Your task to perform on an android device: Open Google Chrome Image 0: 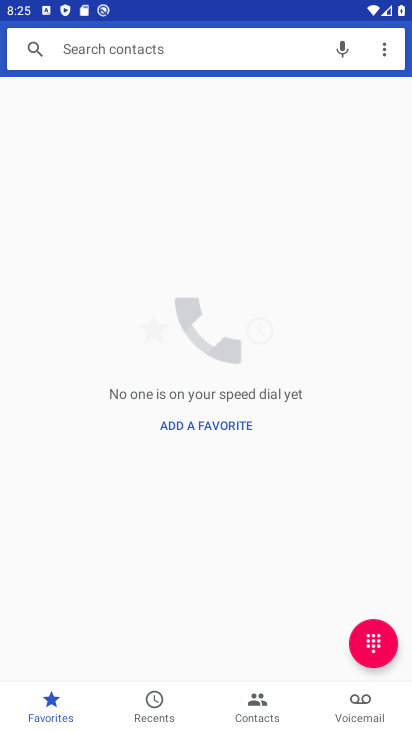
Step 0: press home button
Your task to perform on an android device: Open Google Chrome Image 1: 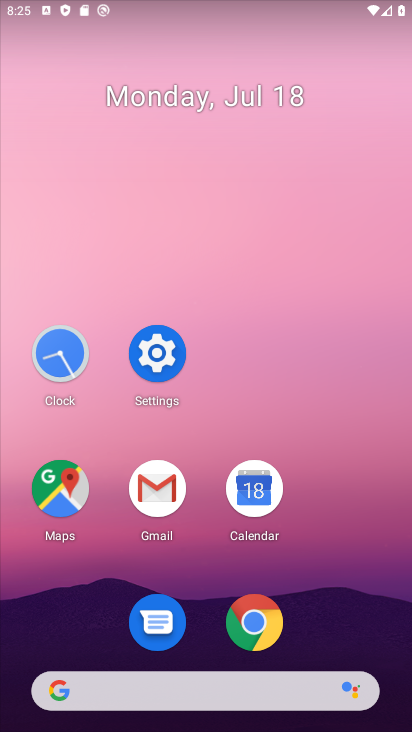
Step 1: click (249, 605)
Your task to perform on an android device: Open Google Chrome Image 2: 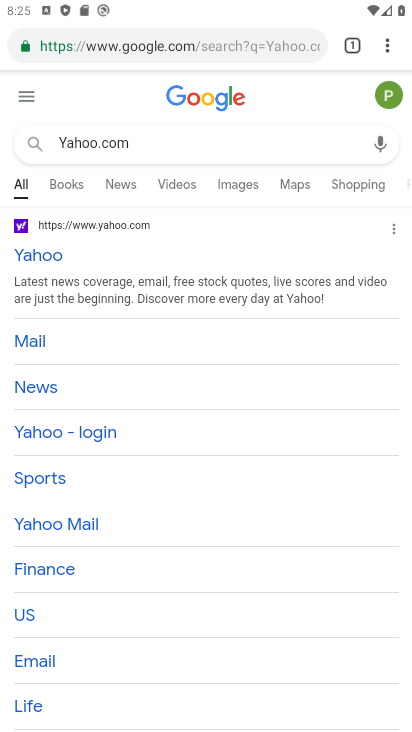
Step 2: task complete